Your task to perform on an android device: star an email in the gmail app Image 0: 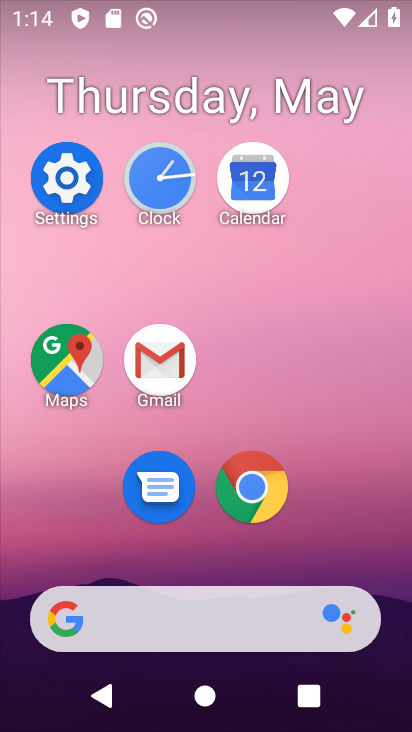
Step 0: click (276, 485)
Your task to perform on an android device: star an email in the gmail app Image 1: 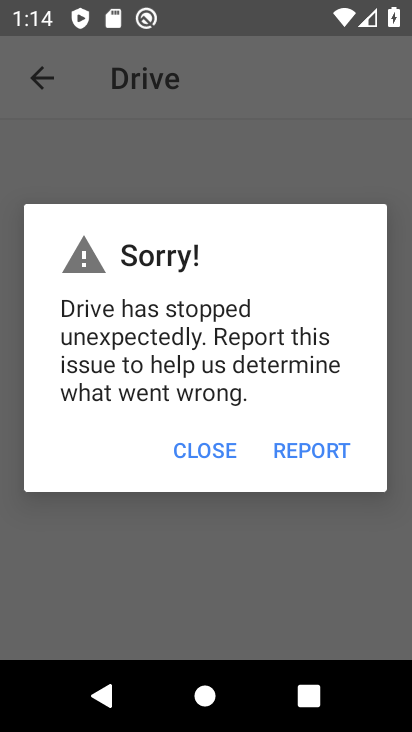
Step 1: press home button
Your task to perform on an android device: star an email in the gmail app Image 2: 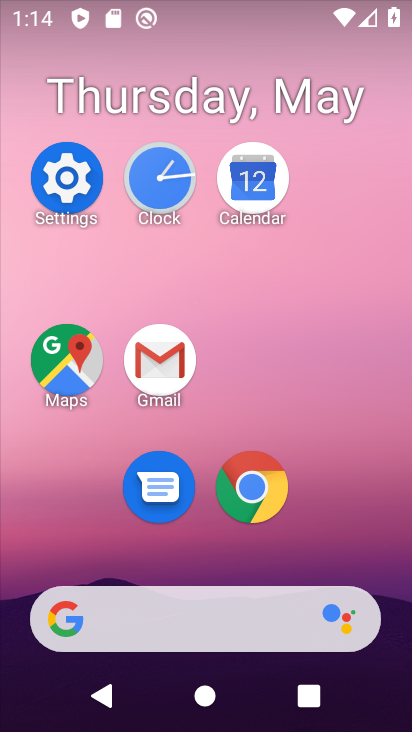
Step 2: click (155, 349)
Your task to perform on an android device: star an email in the gmail app Image 3: 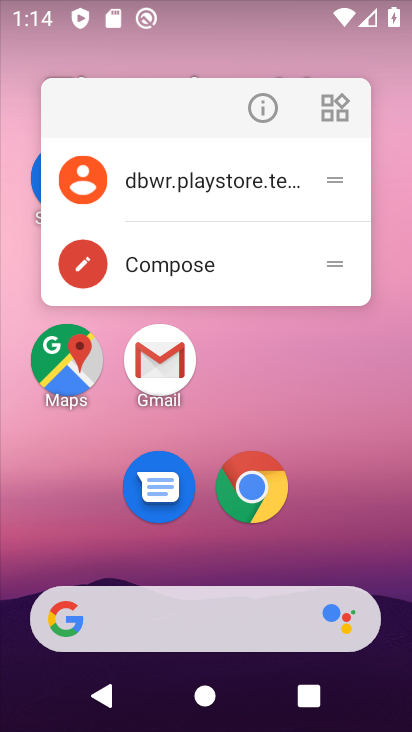
Step 3: click (176, 363)
Your task to perform on an android device: star an email in the gmail app Image 4: 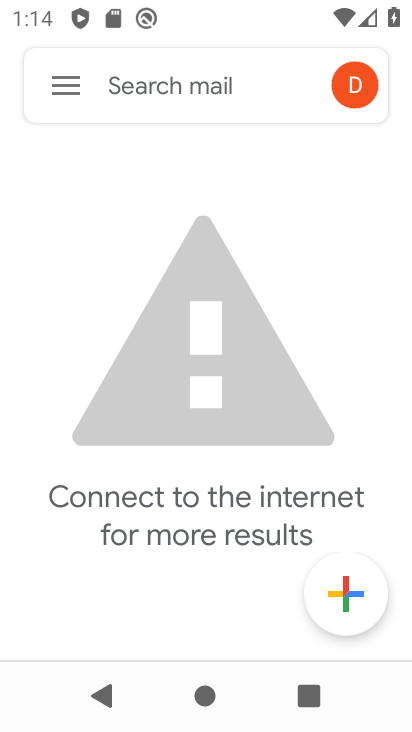
Step 4: click (71, 91)
Your task to perform on an android device: star an email in the gmail app Image 5: 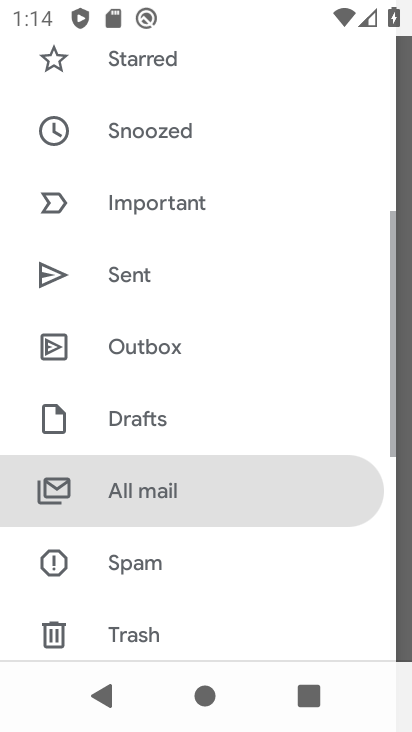
Step 5: click (188, 474)
Your task to perform on an android device: star an email in the gmail app Image 6: 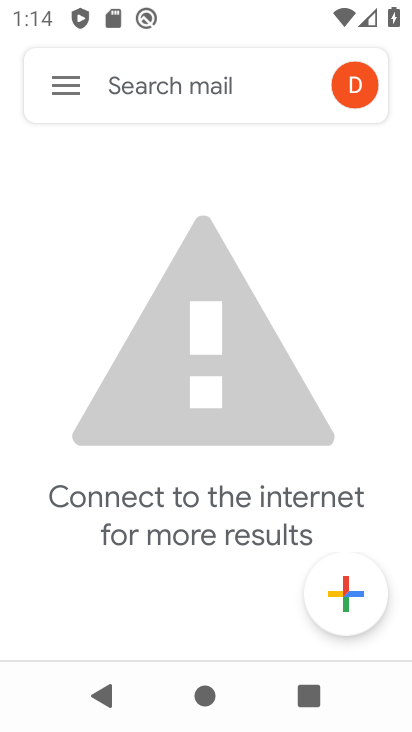
Step 6: task complete